Your task to perform on an android device: Play the last video I watched on Youtube Image 0: 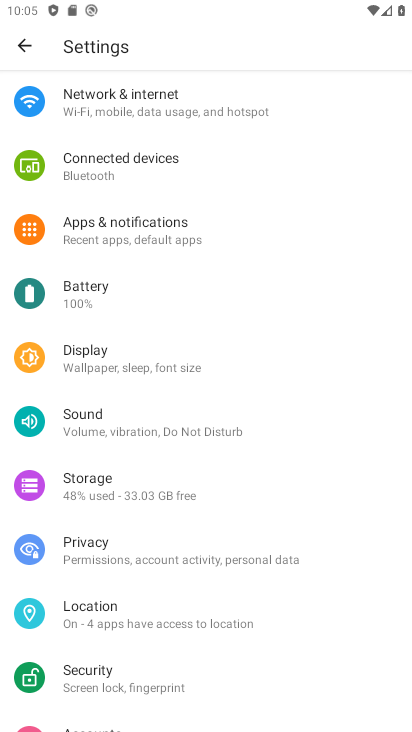
Step 0: press back button
Your task to perform on an android device: Play the last video I watched on Youtube Image 1: 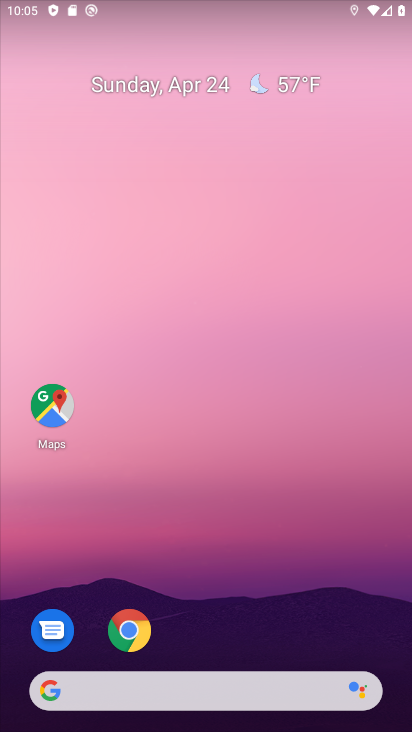
Step 1: drag from (182, 512) to (223, 35)
Your task to perform on an android device: Play the last video I watched on Youtube Image 2: 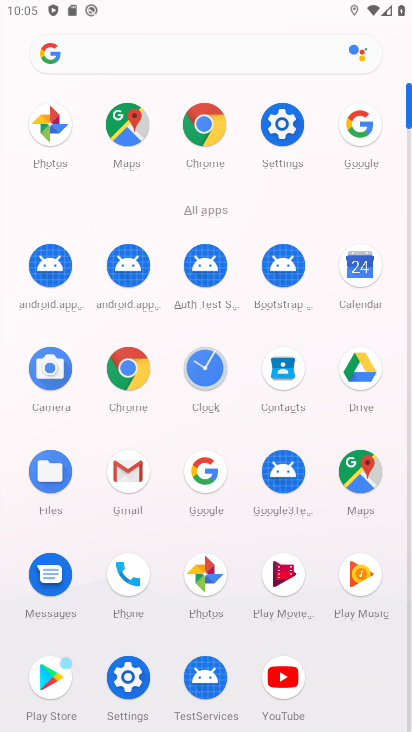
Step 2: click (282, 675)
Your task to perform on an android device: Play the last video I watched on Youtube Image 3: 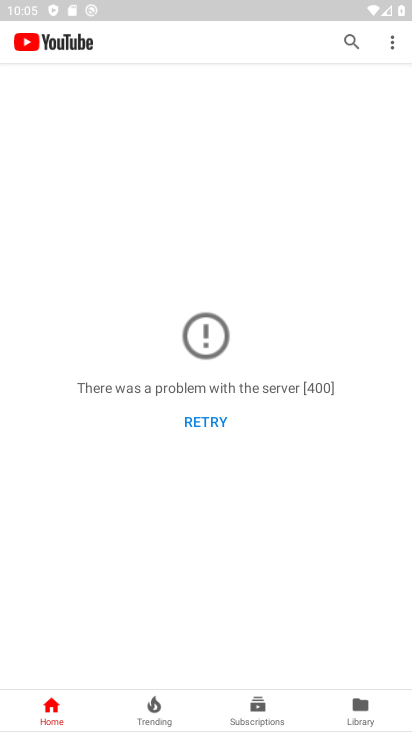
Step 3: click (362, 706)
Your task to perform on an android device: Play the last video I watched on Youtube Image 4: 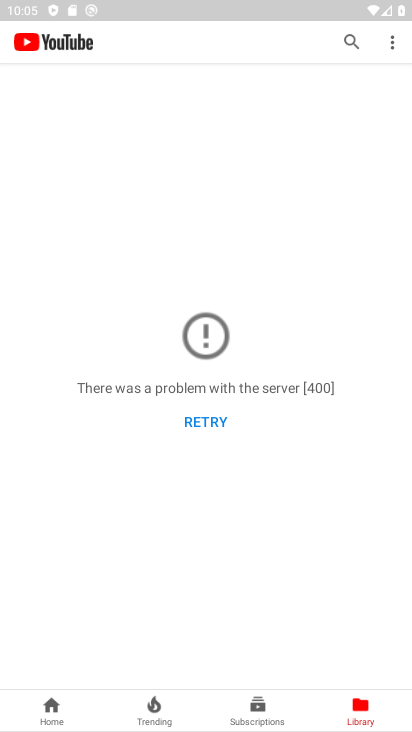
Step 4: click (195, 434)
Your task to perform on an android device: Play the last video I watched on Youtube Image 5: 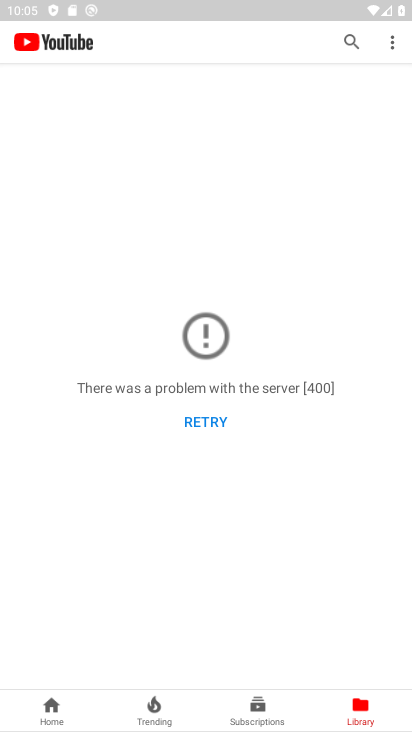
Step 5: click (198, 426)
Your task to perform on an android device: Play the last video I watched on Youtube Image 6: 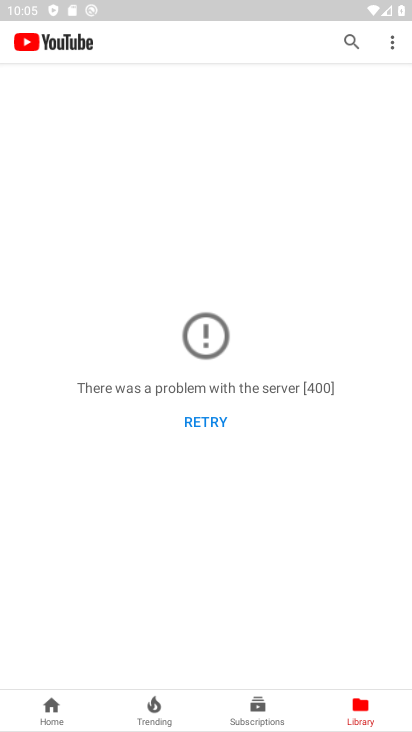
Step 6: click (211, 414)
Your task to perform on an android device: Play the last video I watched on Youtube Image 7: 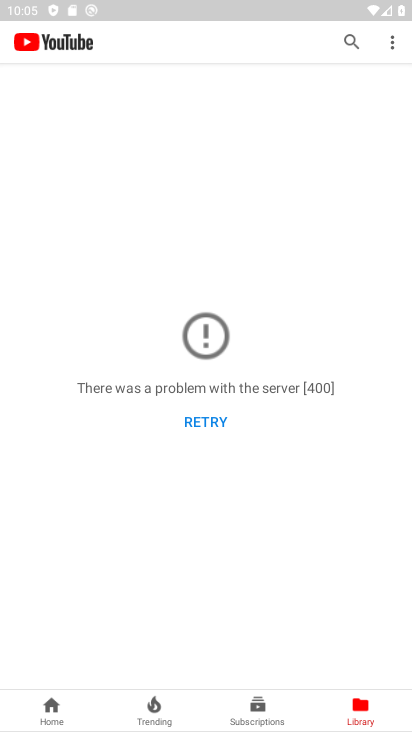
Step 7: task complete